Your task to perform on an android device: turn vacation reply on in the gmail app Image 0: 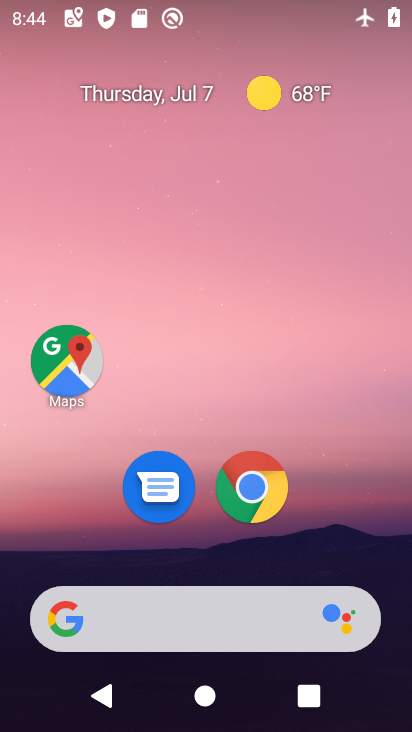
Step 0: drag from (231, 533) to (180, 30)
Your task to perform on an android device: turn vacation reply on in the gmail app Image 1: 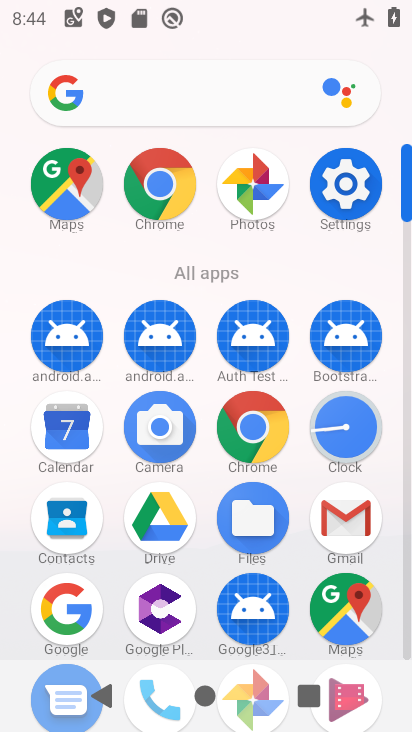
Step 1: click (330, 502)
Your task to perform on an android device: turn vacation reply on in the gmail app Image 2: 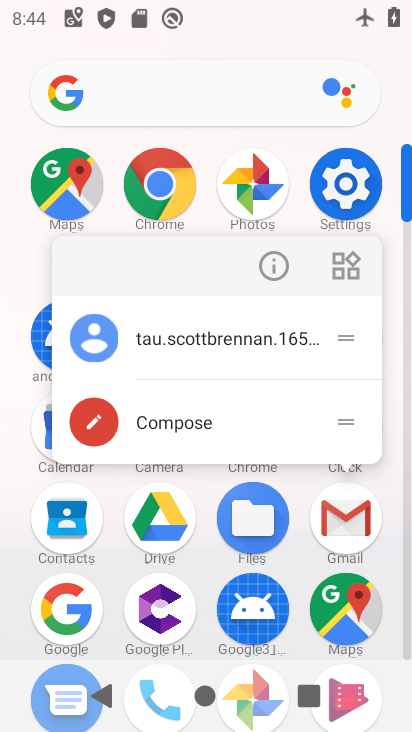
Step 2: click (344, 522)
Your task to perform on an android device: turn vacation reply on in the gmail app Image 3: 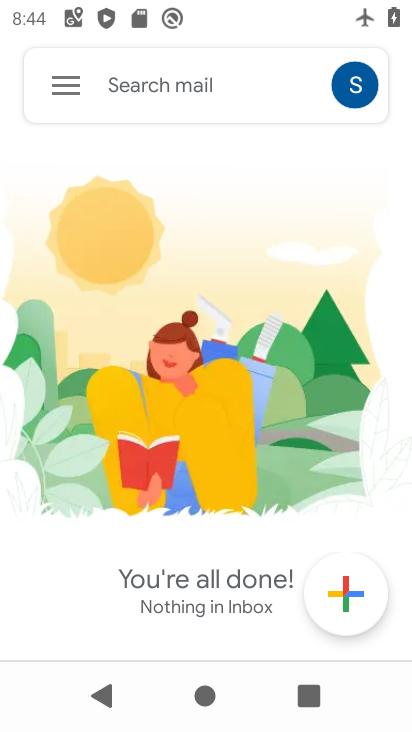
Step 3: click (56, 91)
Your task to perform on an android device: turn vacation reply on in the gmail app Image 4: 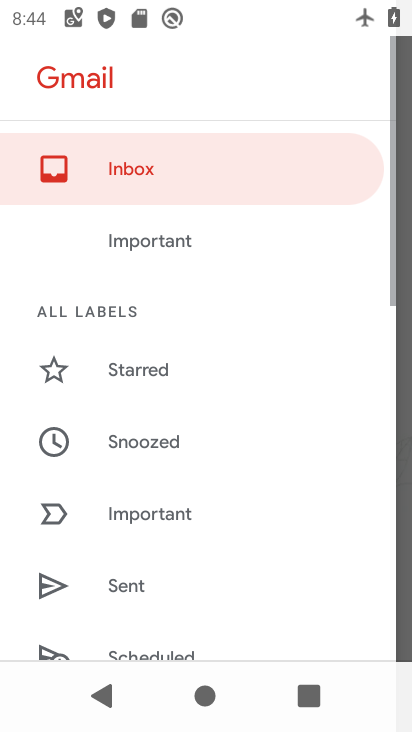
Step 4: drag from (210, 527) to (181, 36)
Your task to perform on an android device: turn vacation reply on in the gmail app Image 5: 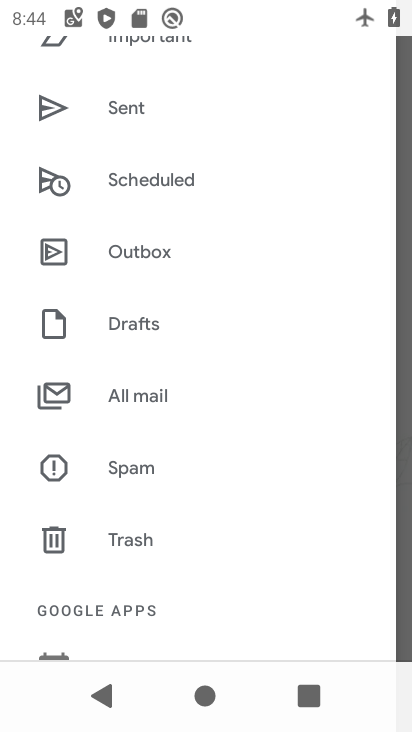
Step 5: drag from (188, 582) to (174, 176)
Your task to perform on an android device: turn vacation reply on in the gmail app Image 6: 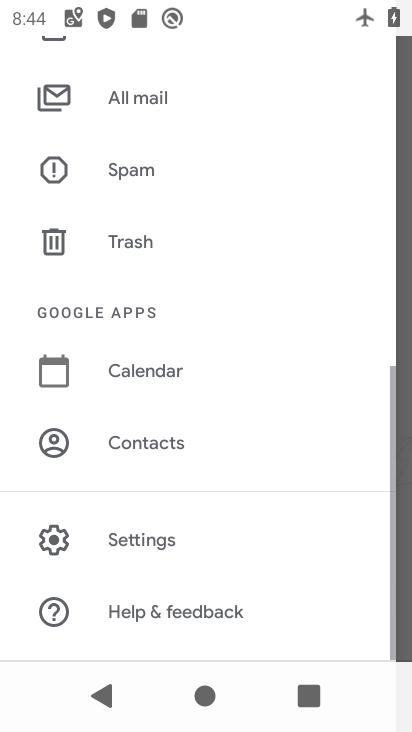
Step 6: click (161, 540)
Your task to perform on an android device: turn vacation reply on in the gmail app Image 7: 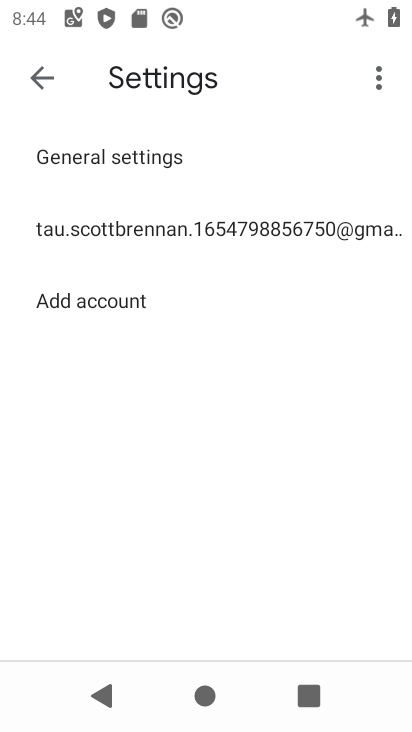
Step 7: click (95, 235)
Your task to perform on an android device: turn vacation reply on in the gmail app Image 8: 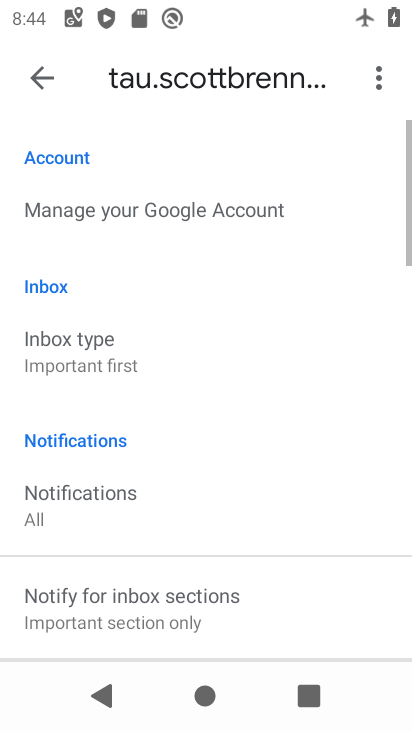
Step 8: drag from (138, 466) to (111, 80)
Your task to perform on an android device: turn vacation reply on in the gmail app Image 9: 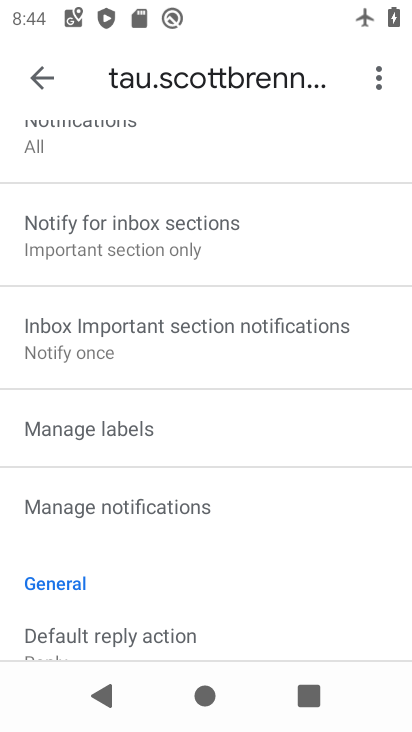
Step 9: drag from (153, 512) to (135, 118)
Your task to perform on an android device: turn vacation reply on in the gmail app Image 10: 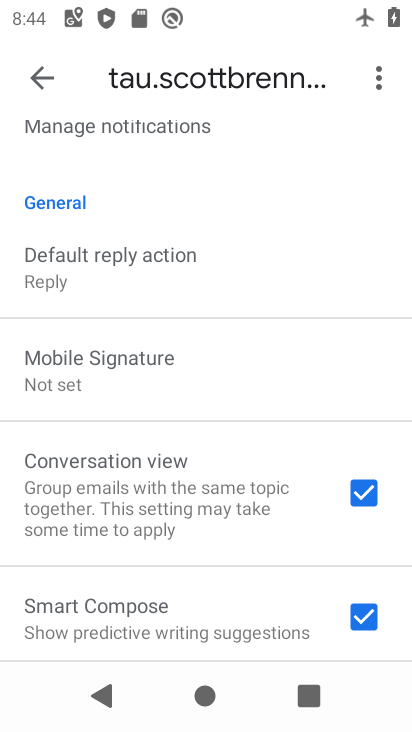
Step 10: drag from (198, 528) to (191, 204)
Your task to perform on an android device: turn vacation reply on in the gmail app Image 11: 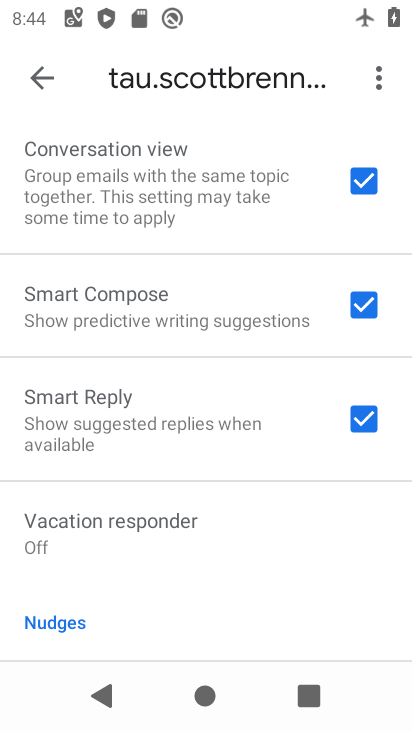
Step 11: click (132, 515)
Your task to perform on an android device: turn vacation reply on in the gmail app Image 12: 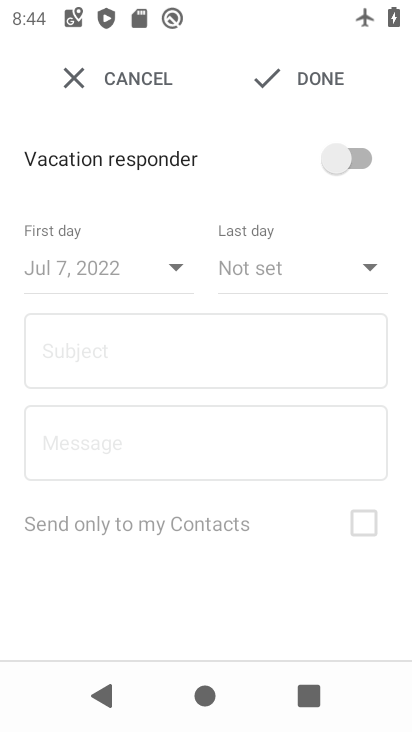
Step 12: click (338, 153)
Your task to perform on an android device: turn vacation reply on in the gmail app Image 13: 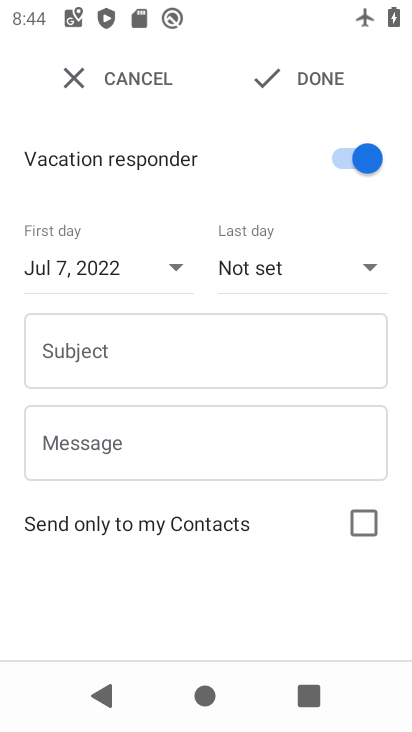
Step 13: click (317, 64)
Your task to perform on an android device: turn vacation reply on in the gmail app Image 14: 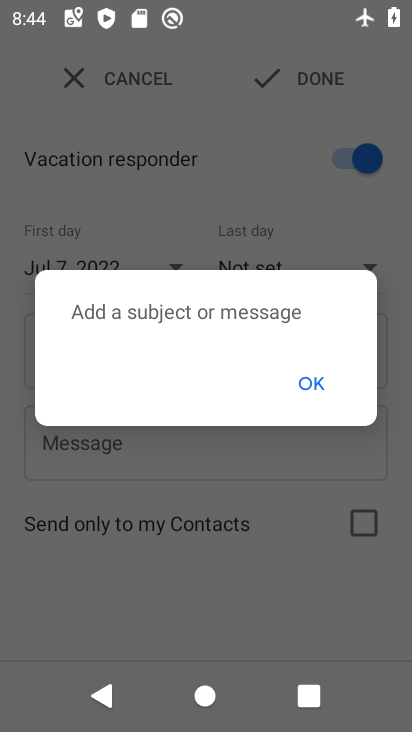
Step 14: task complete